Your task to perform on an android device: turn on priority inbox in the gmail app Image 0: 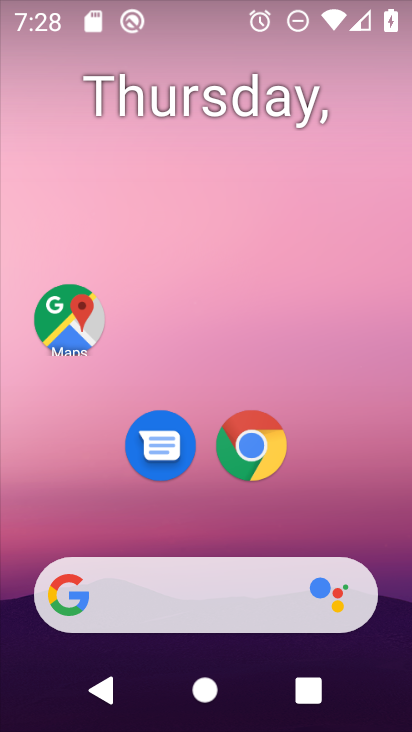
Step 0: press home button
Your task to perform on an android device: turn on priority inbox in the gmail app Image 1: 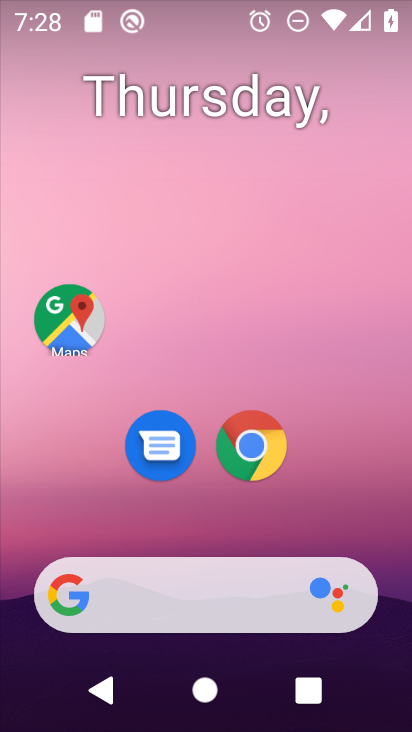
Step 1: drag from (342, 476) to (230, 88)
Your task to perform on an android device: turn on priority inbox in the gmail app Image 2: 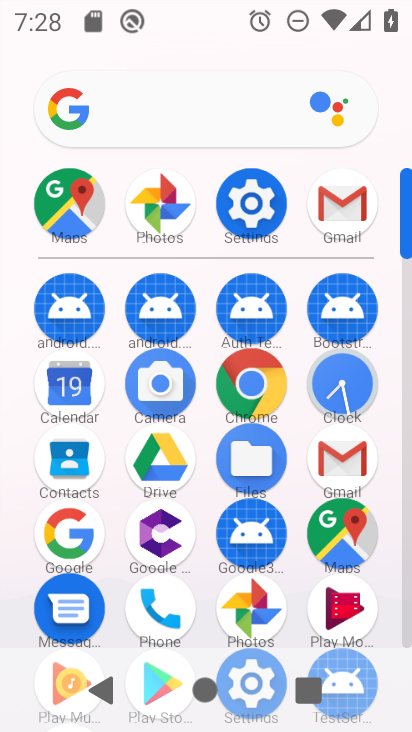
Step 2: click (352, 193)
Your task to perform on an android device: turn on priority inbox in the gmail app Image 3: 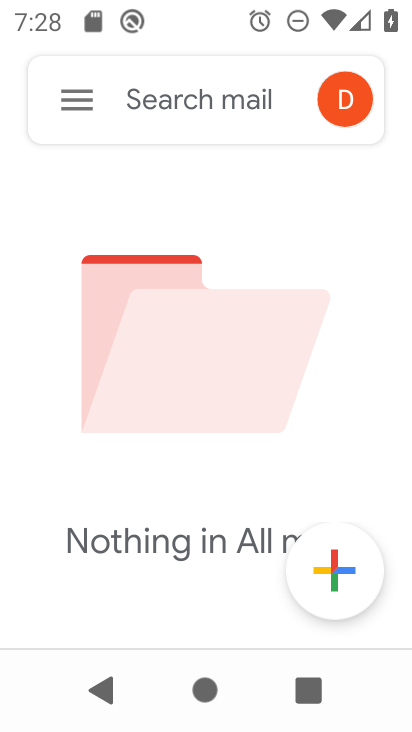
Step 3: click (89, 101)
Your task to perform on an android device: turn on priority inbox in the gmail app Image 4: 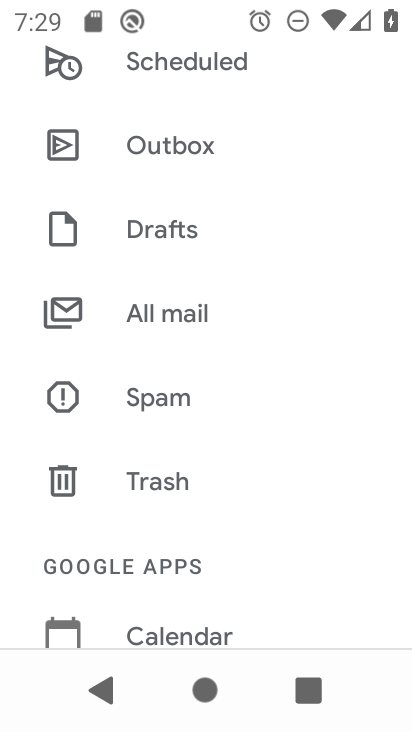
Step 4: drag from (225, 373) to (205, 125)
Your task to perform on an android device: turn on priority inbox in the gmail app Image 5: 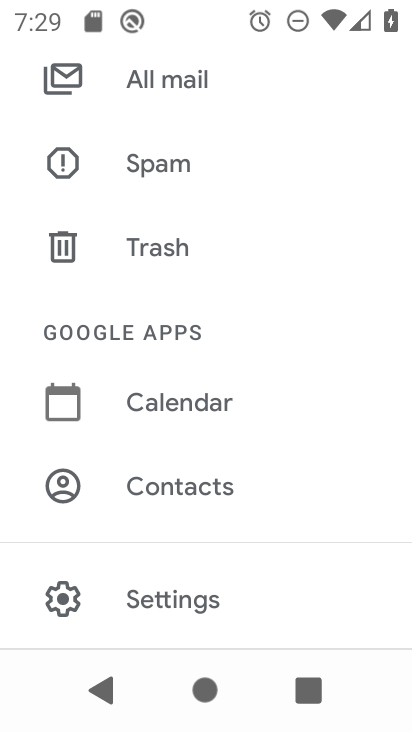
Step 5: click (155, 601)
Your task to perform on an android device: turn on priority inbox in the gmail app Image 6: 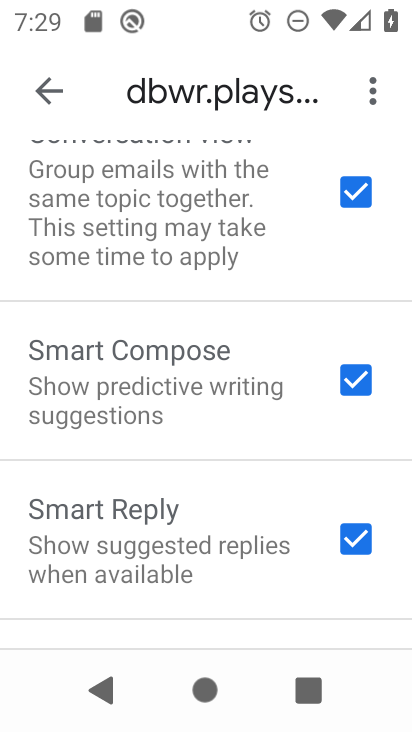
Step 6: drag from (126, 189) to (185, 709)
Your task to perform on an android device: turn on priority inbox in the gmail app Image 7: 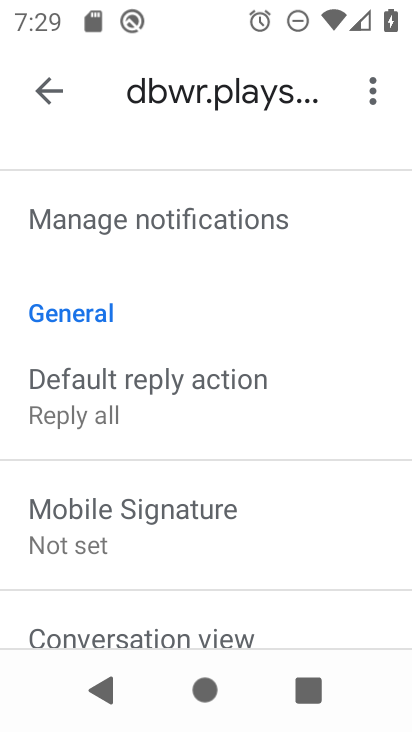
Step 7: drag from (164, 259) to (213, 726)
Your task to perform on an android device: turn on priority inbox in the gmail app Image 8: 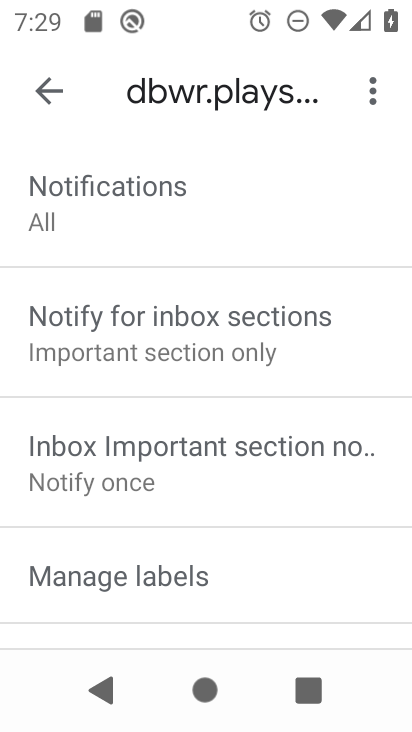
Step 8: drag from (120, 247) to (180, 694)
Your task to perform on an android device: turn on priority inbox in the gmail app Image 9: 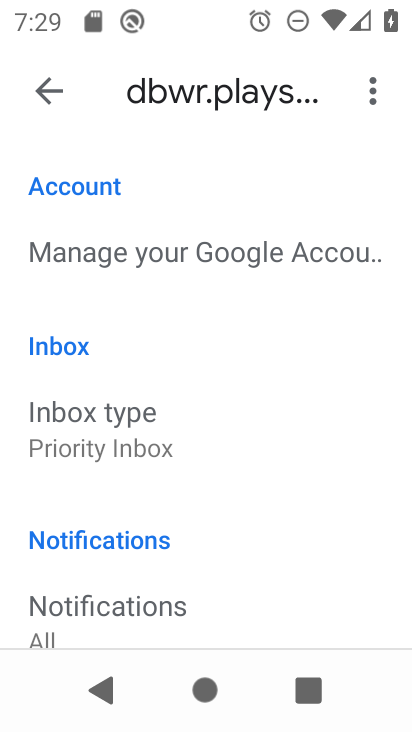
Step 9: click (125, 439)
Your task to perform on an android device: turn on priority inbox in the gmail app Image 10: 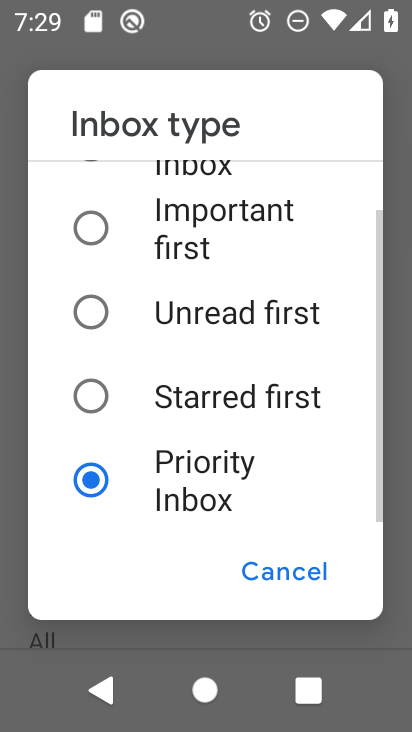
Step 10: task complete